Your task to perform on an android device: Add razer naga to the cart on costco, then select checkout. Image 0: 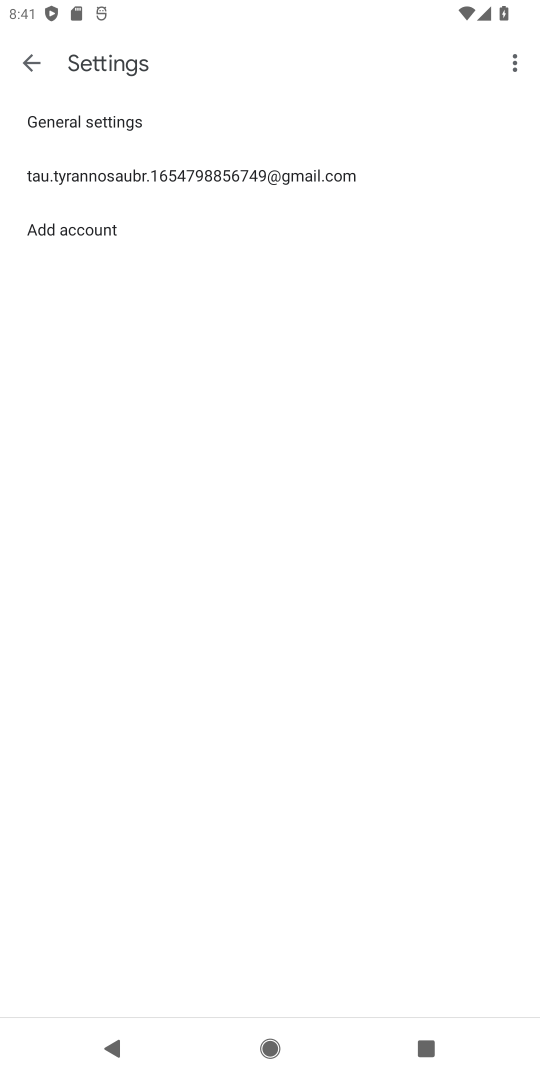
Step 0: press home button
Your task to perform on an android device: Add razer naga to the cart on costco, then select checkout. Image 1: 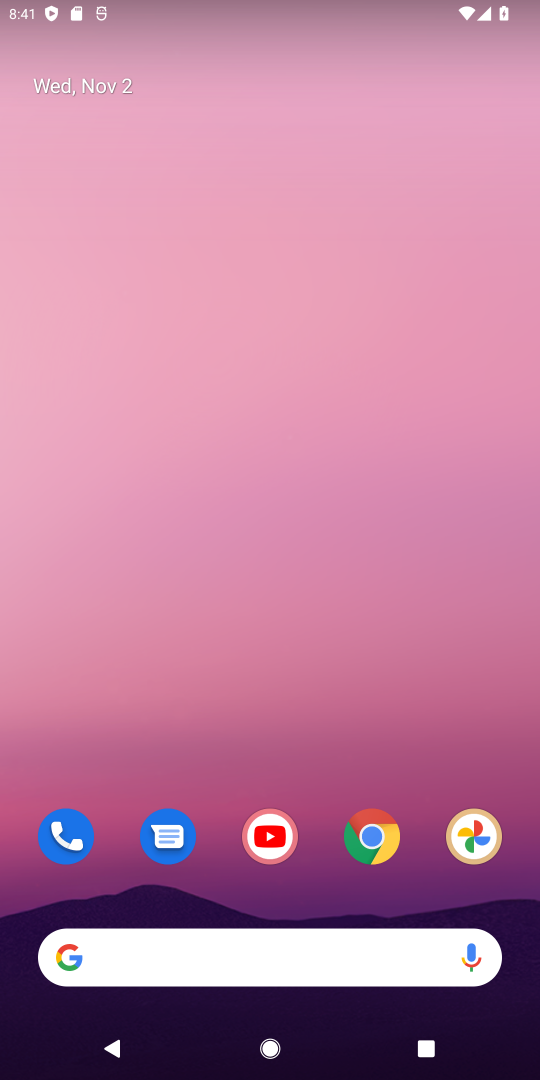
Step 1: click (379, 835)
Your task to perform on an android device: Add razer naga to the cart on costco, then select checkout. Image 2: 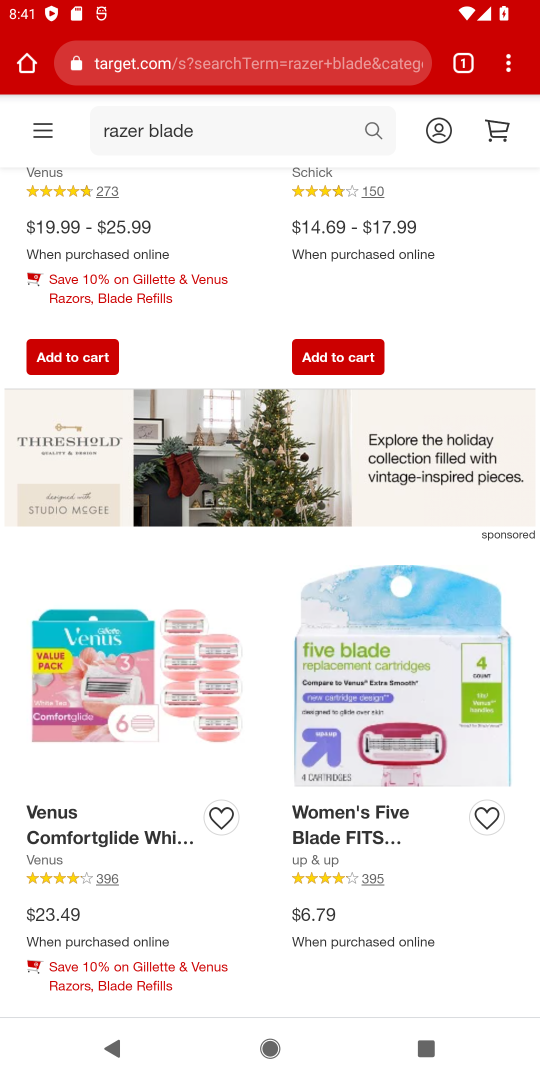
Step 2: click (277, 41)
Your task to perform on an android device: Add razer naga to the cart on costco, then select checkout. Image 3: 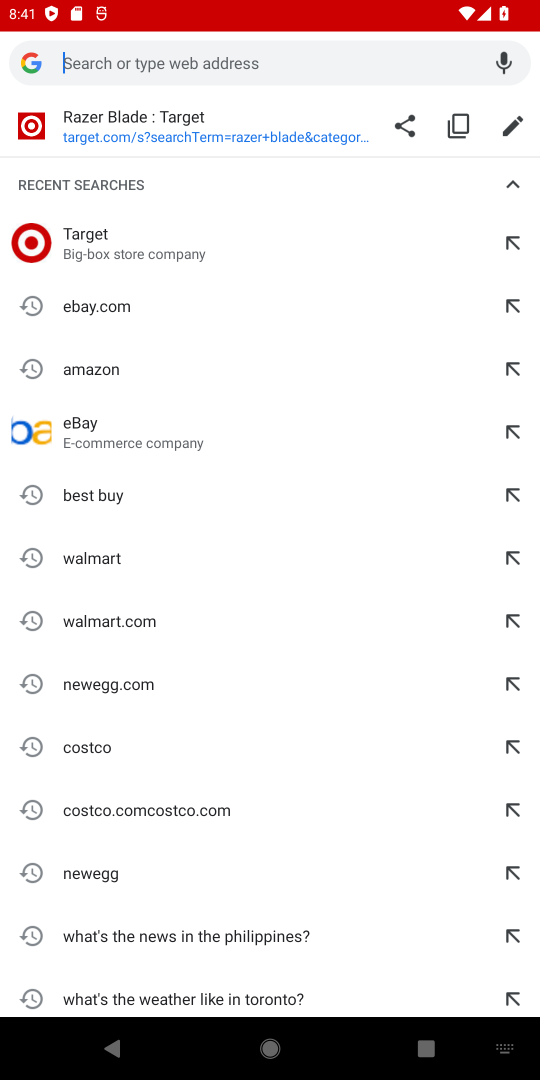
Step 3: type "costco"
Your task to perform on an android device: Add razer naga to the cart on costco, then select checkout. Image 4: 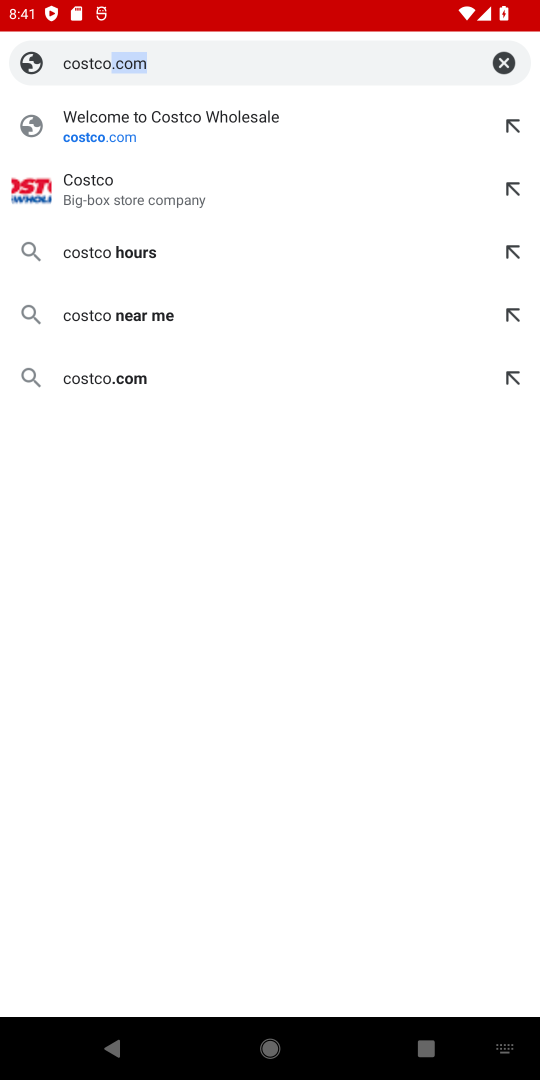
Step 4: click (90, 190)
Your task to perform on an android device: Add razer naga to the cart on costco, then select checkout. Image 5: 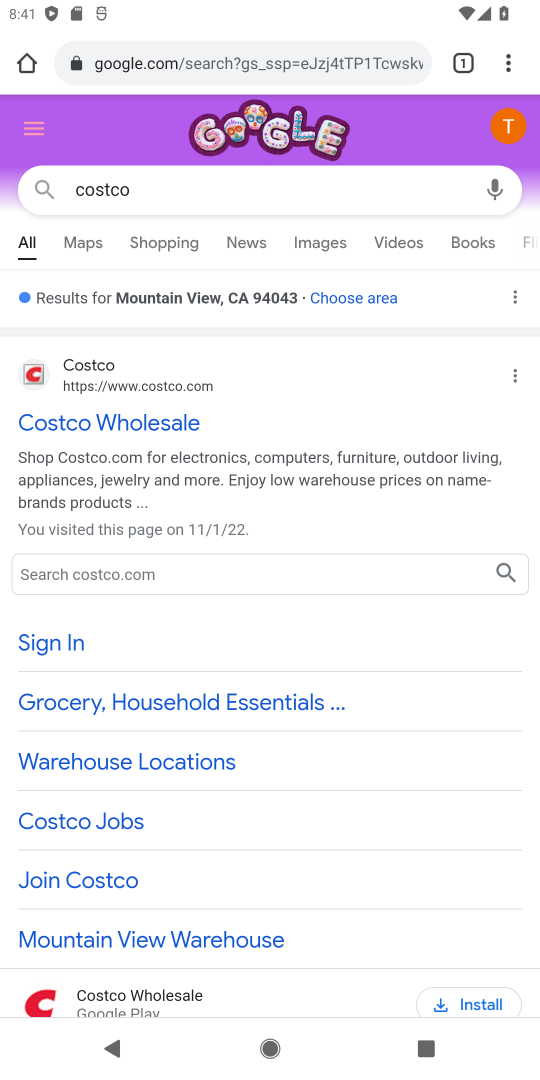
Step 5: click (57, 414)
Your task to perform on an android device: Add razer naga to the cart on costco, then select checkout. Image 6: 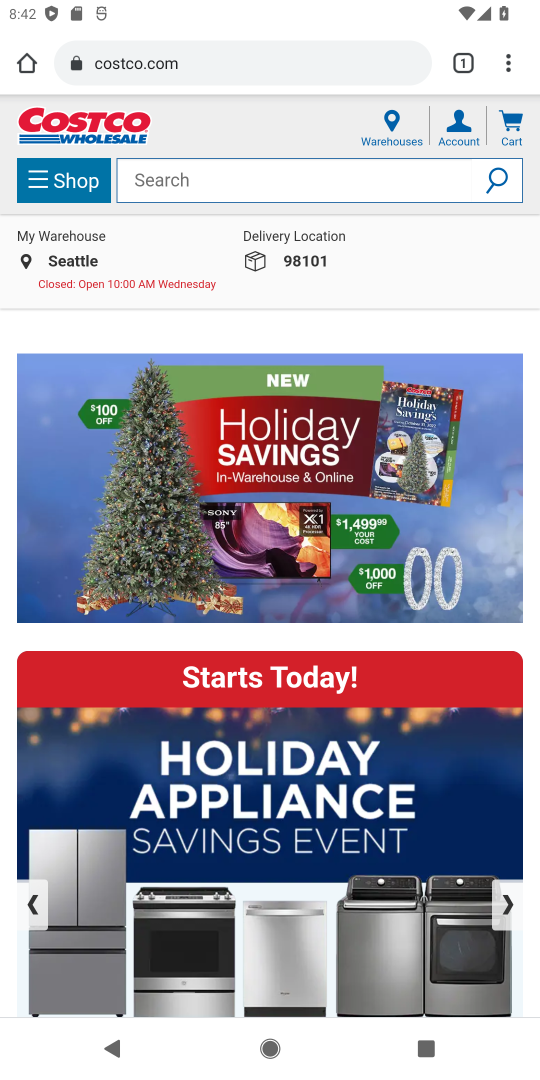
Step 6: click (232, 181)
Your task to perform on an android device: Add razer naga to the cart on costco, then select checkout. Image 7: 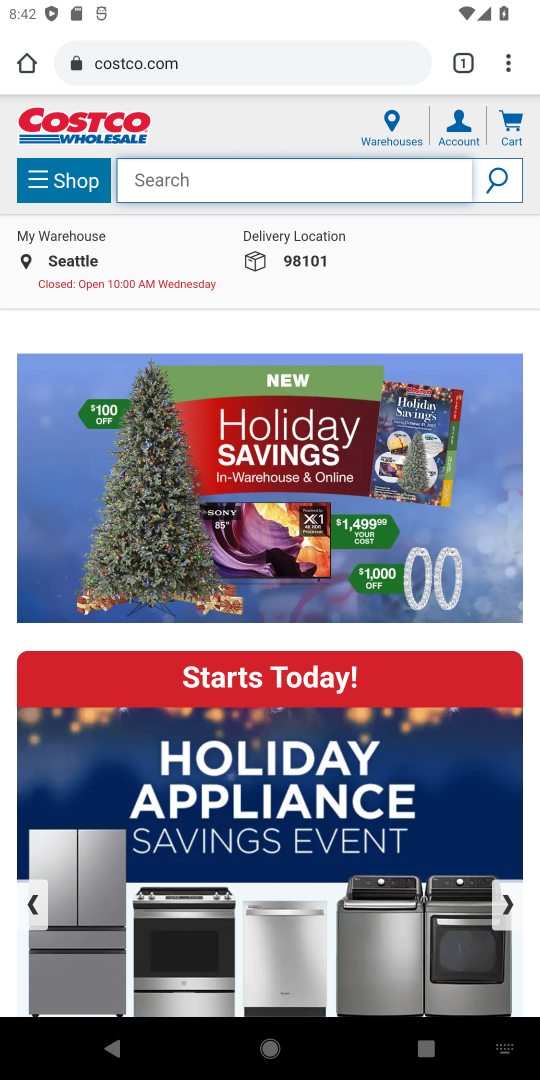
Step 7: type "razer naga"
Your task to perform on an android device: Add razer naga to the cart on costco, then select checkout. Image 8: 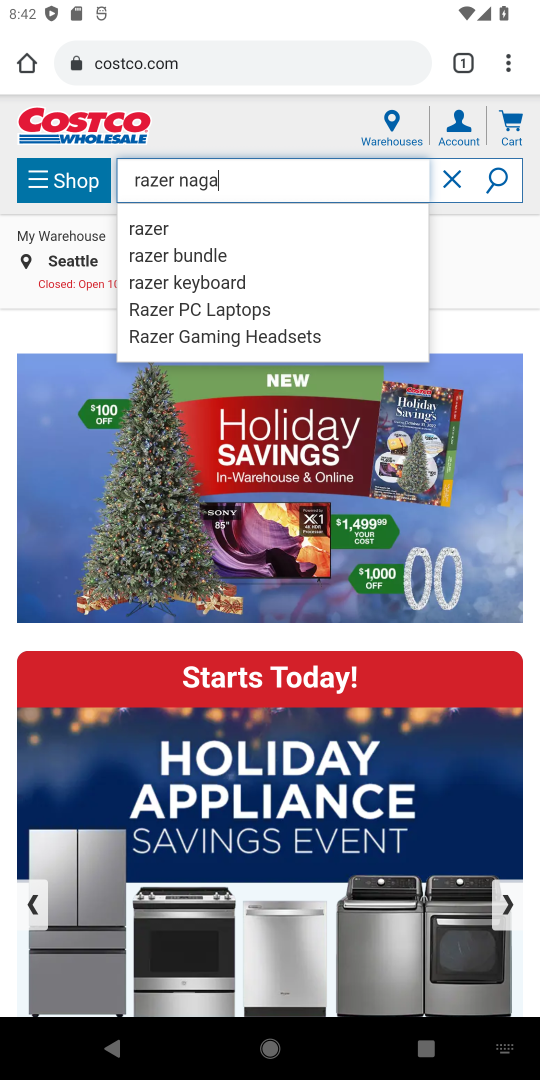
Step 8: click (141, 221)
Your task to perform on an android device: Add razer naga to the cart on costco, then select checkout. Image 9: 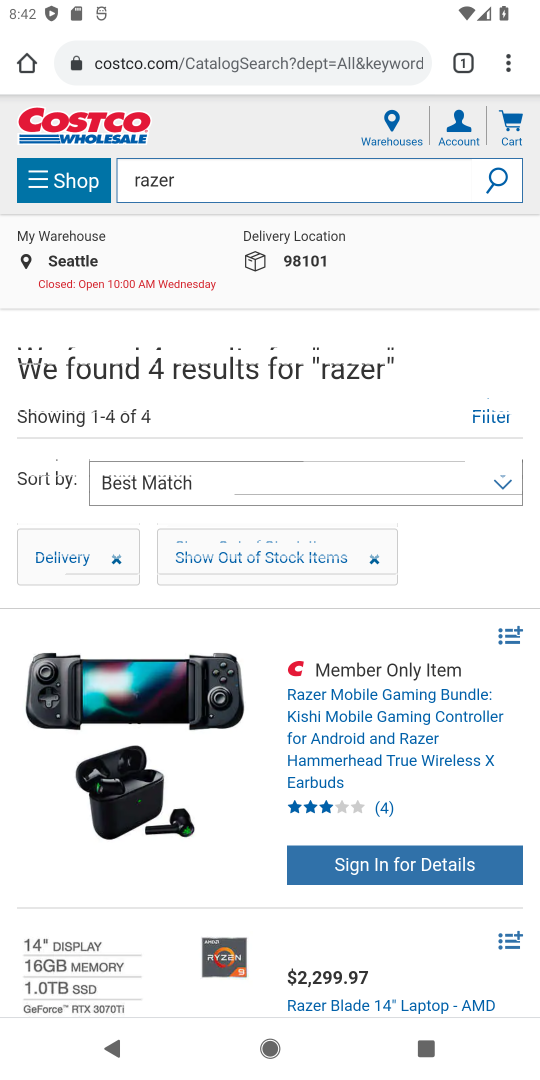
Step 9: task complete